Your task to perform on an android device: Go to Maps Image 0: 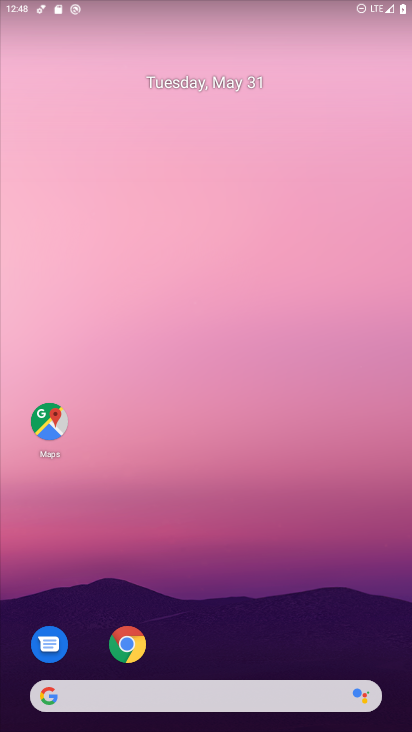
Step 0: drag from (188, 632) to (293, 181)
Your task to perform on an android device: Go to Maps Image 1: 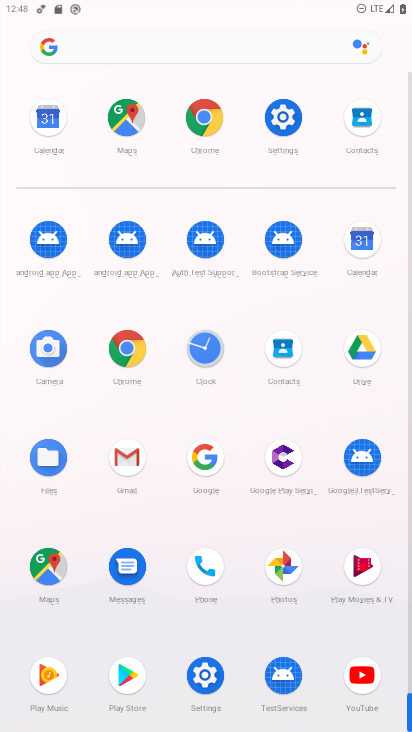
Step 1: click (43, 566)
Your task to perform on an android device: Go to Maps Image 2: 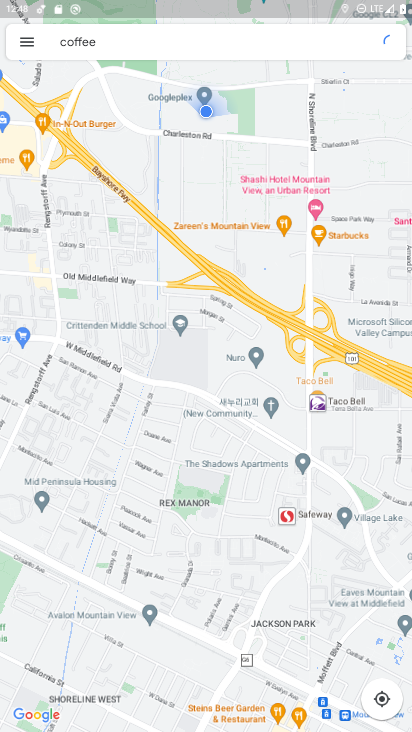
Step 2: task complete